Your task to perform on an android device: open a new tab in the chrome app Image 0: 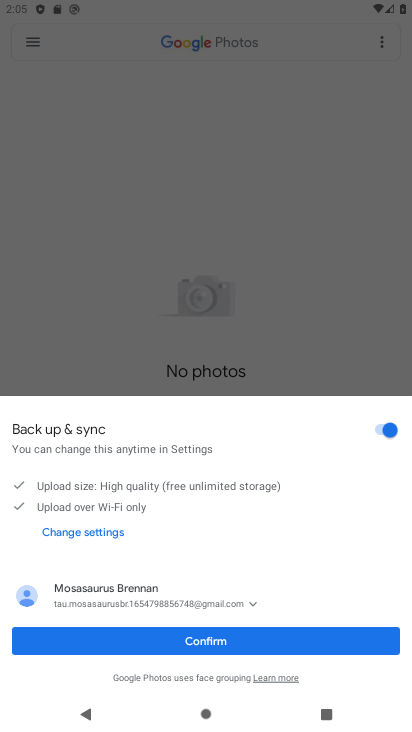
Step 0: click (246, 645)
Your task to perform on an android device: open a new tab in the chrome app Image 1: 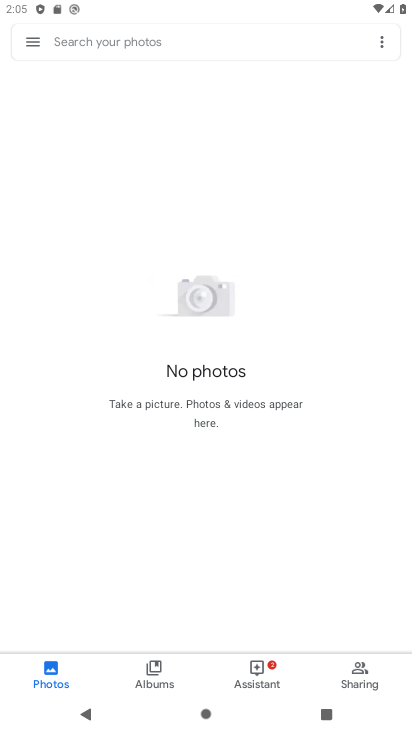
Step 1: press home button
Your task to perform on an android device: open a new tab in the chrome app Image 2: 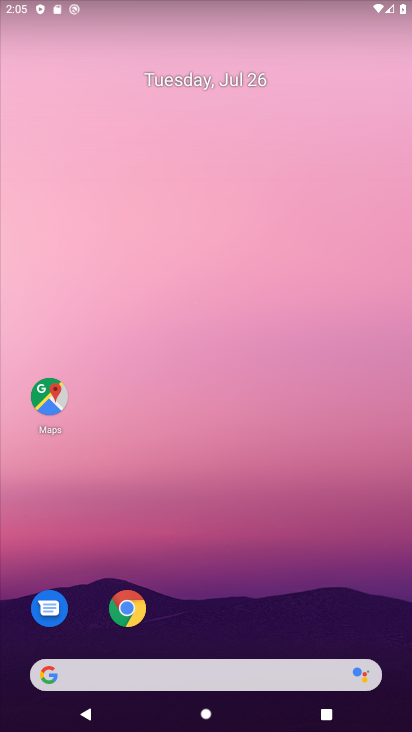
Step 2: click (132, 608)
Your task to perform on an android device: open a new tab in the chrome app Image 3: 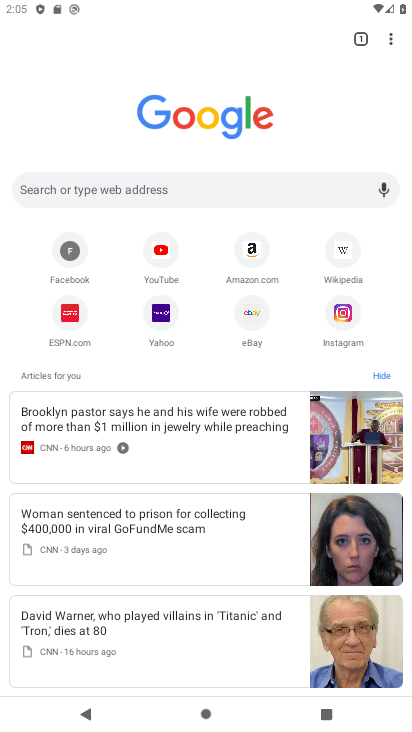
Step 3: click (364, 38)
Your task to perform on an android device: open a new tab in the chrome app Image 4: 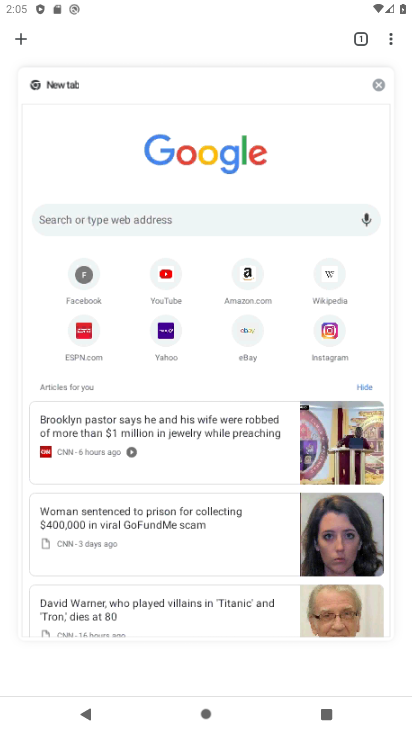
Step 4: click (24, 39)
Your task to perform on an android device: open a new tab in the chrome app Image 5: 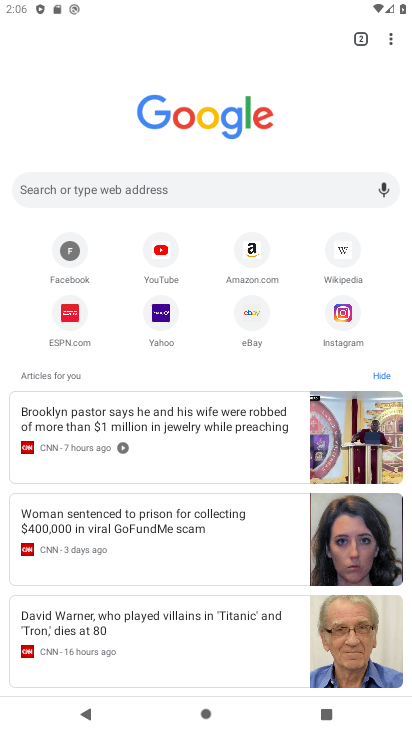
Step 5: task complete